Your task to perform on an android device: set the timer Image 0: 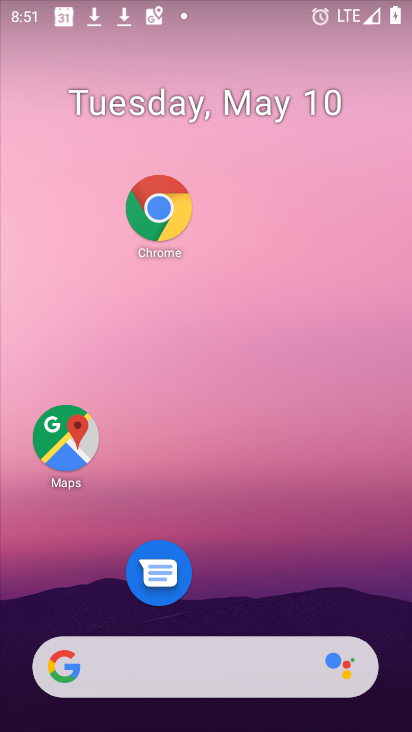
Step 0: drag from (283, 709) to (331, 214)
Your task to perform on an android device: set the timer Image 1: 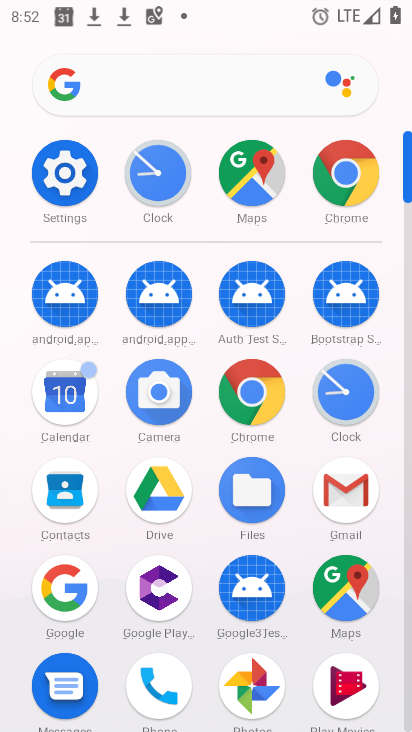
Step 1: click (360, 389)
Your task to perform on an android device: set the timer Image 2: 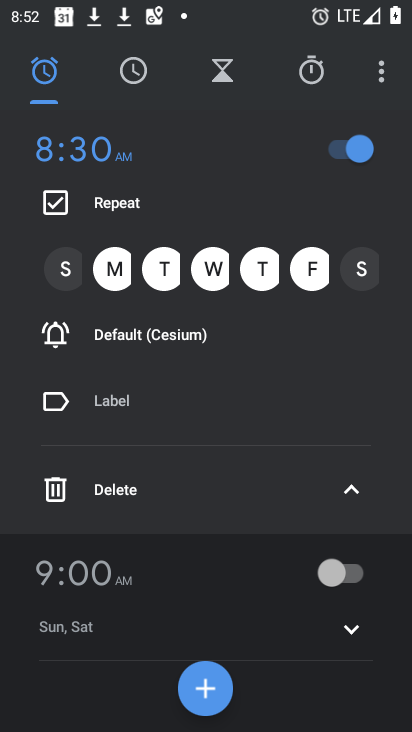
Step 2: click (375, 66)
Your task to perform on an android device: set the timer Image 3: 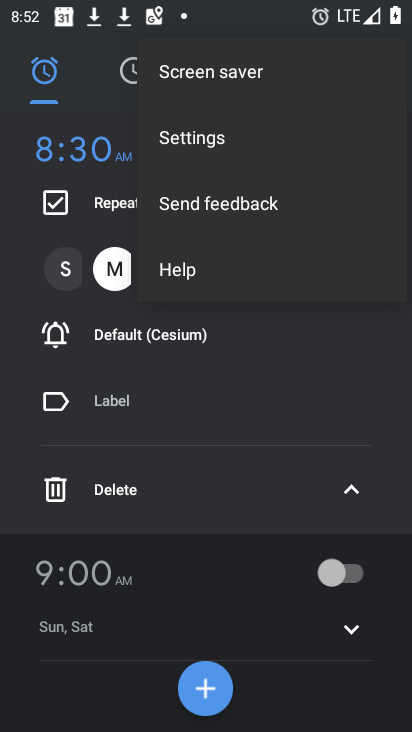
Step 3: click (218, 145)
Your task to perform on an android device: set the timer Image 4: 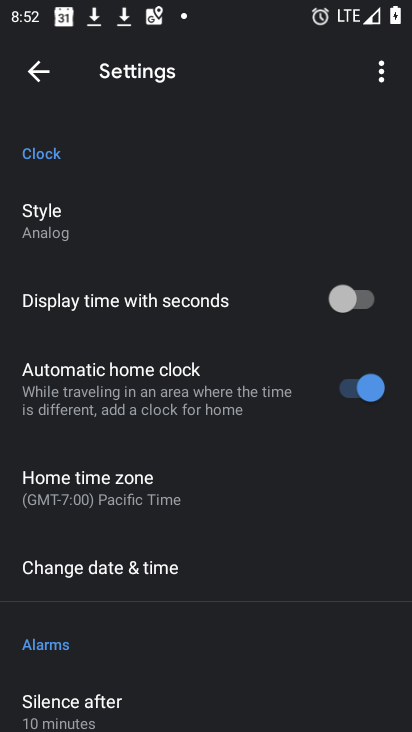
Step 4: drag from (193, 531) to (257, 305)
Your task to perform on an android device: set the timer Image 5: 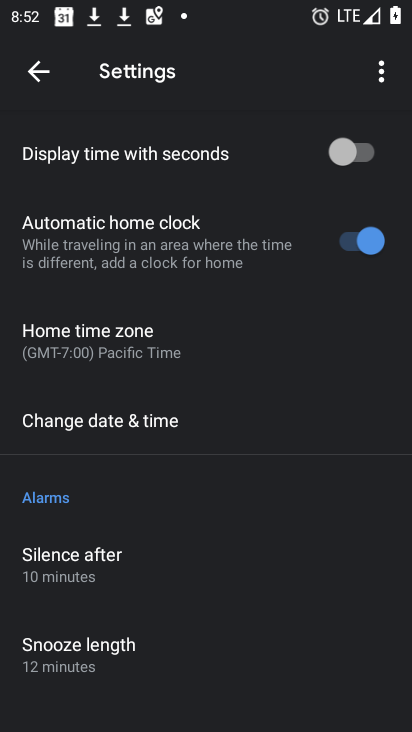
Step 5: drag from (184, 591) to (295, 193)
Your task to perform on an android device: set the timer Image 6: 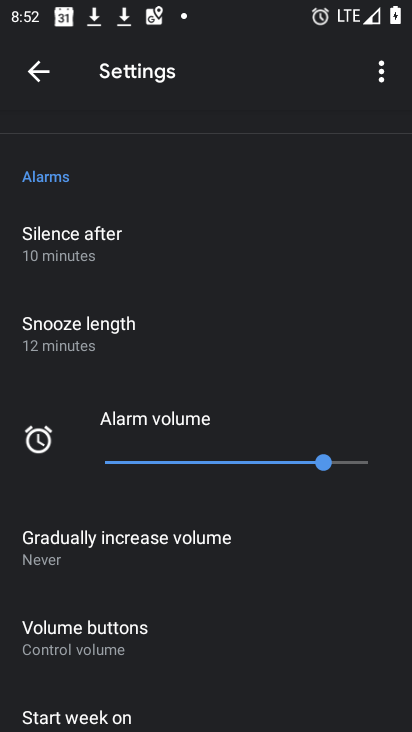
Step 6: drag from (154, 644) to (252, 270)
Your task to perform on an android device: set the timer Image 7: 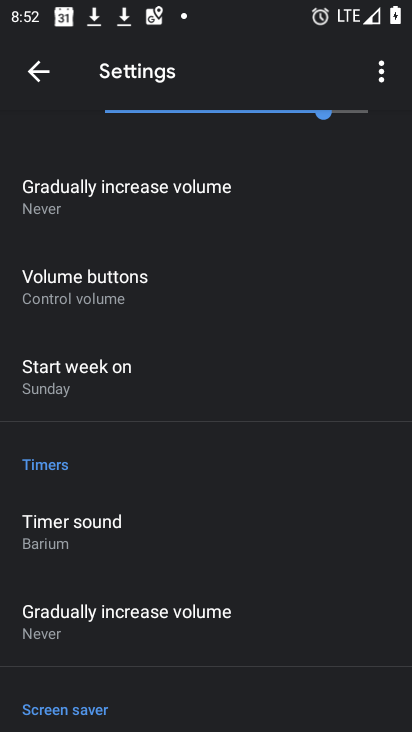
Step 7: click (129, 529)
Your task to perform on an android device: set the timer Image 8: 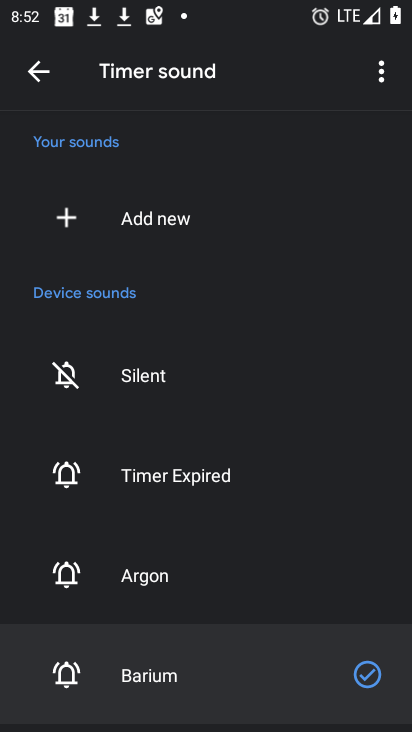
Step 8: click (180, 564)
Your task to perform on an android device: set the timer Image 9: 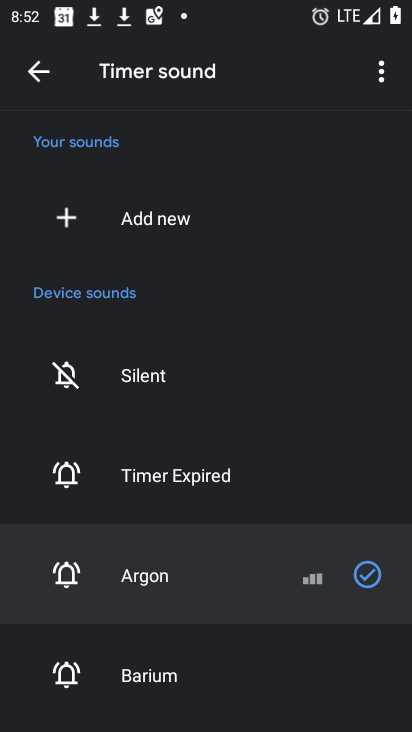
Step 9: task complete